Your task to perform on an android device: turn off translation in the chrome app Image 0: 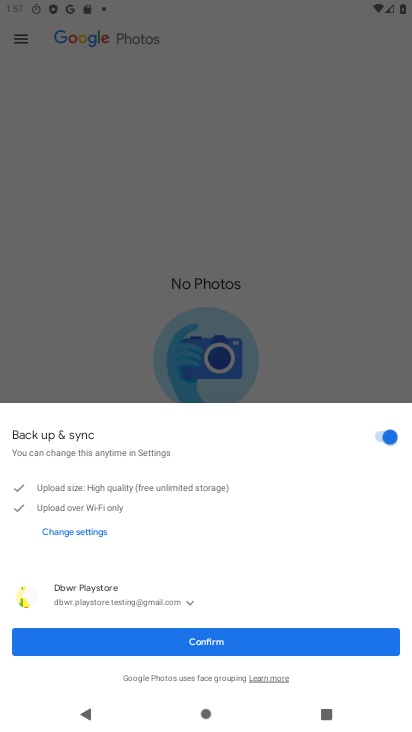
Step 0: press home button
Your task to perform on an android device: turn off translation in the chrome app Image 1: 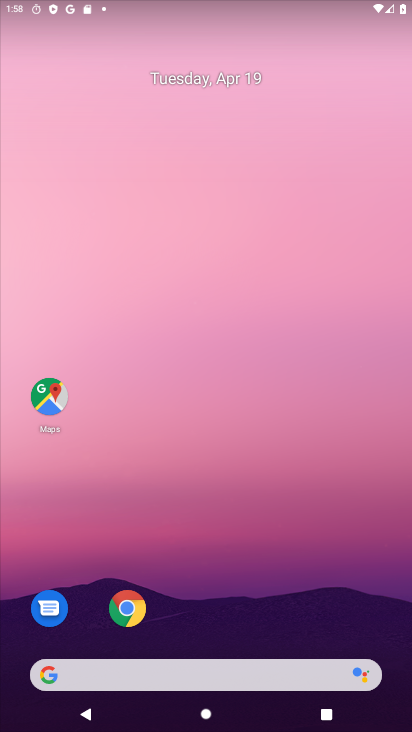
Step 1: drag from (284, 549) to (283, 5)
Your task to perform on an android device: turn off translation in the chrome app Image 2: 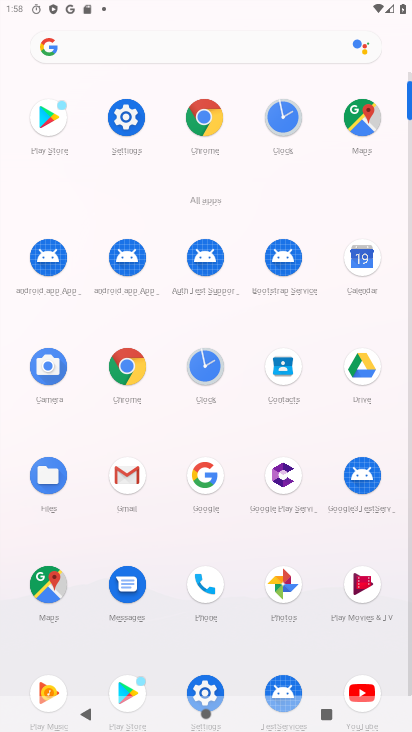
Step 2: click (120, 368)
Your task to perform on an android device: turn off translation in the chrome app Image 3: 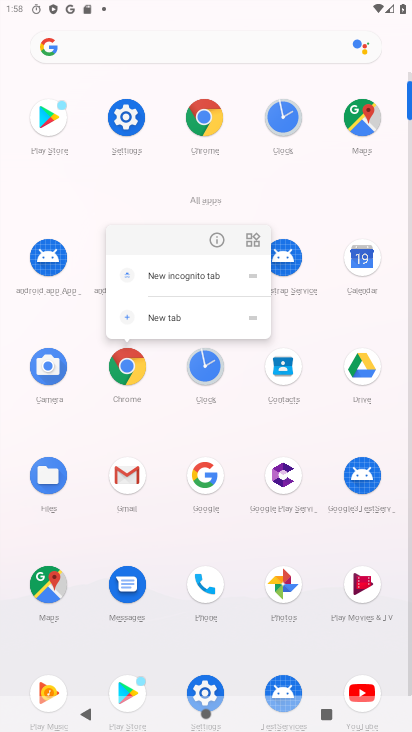
Step 3: click (116, 358)
Your task to perform on an android device: turn off translation in the chrome app Image 4: 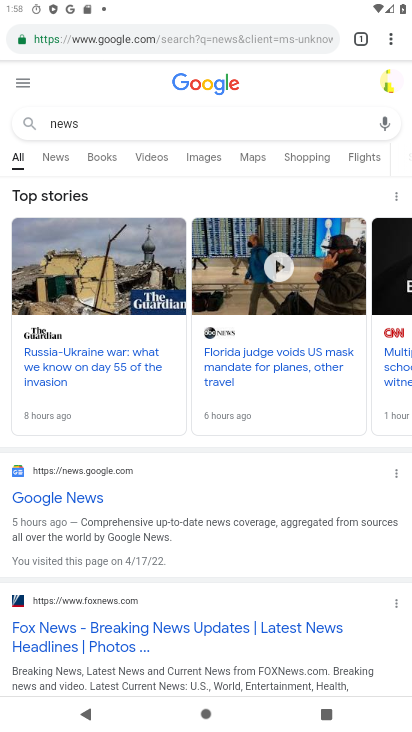
Step 4: click (387, 32)
Your task to perform on an android device: turn off translation in the chrome app Image 5: 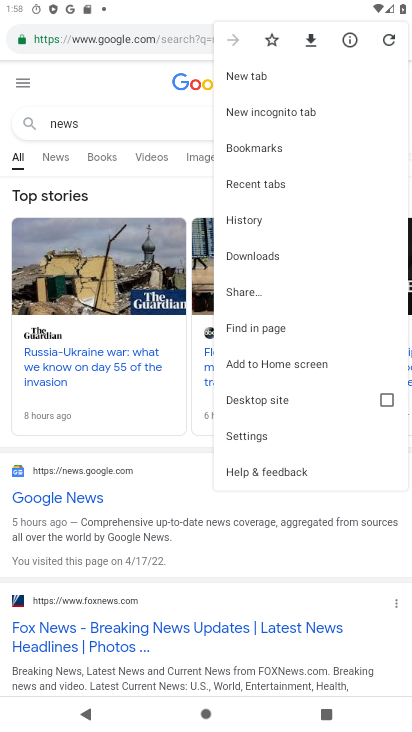
Step 5: click (284, 429)
Your task to perform on an android device: turn off translation in the chrome app Image 6: 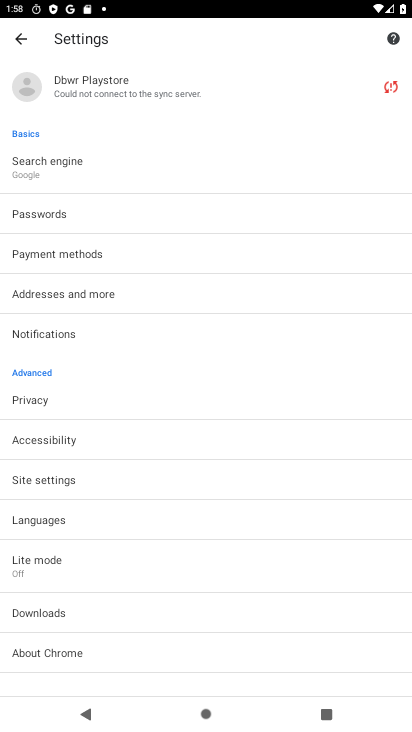
Step 6: click (31, 518)
Your task to perform on an android device: turn off translation in the chrome app Image 7: 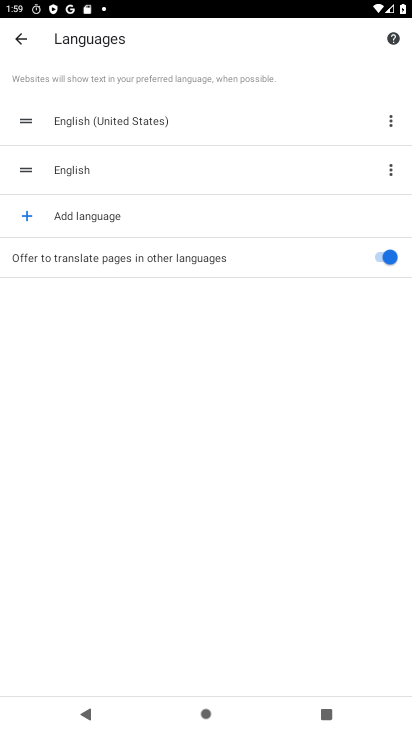
Step 7: click (388, 258)
Your task to perform on an android device: turn off translation in the chrome app Image 8: 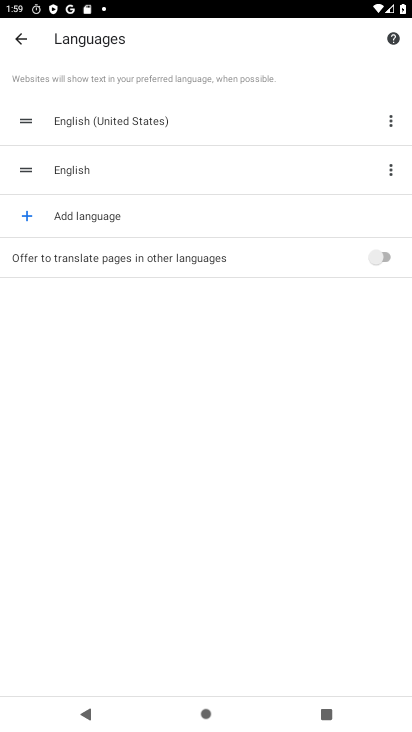
Step 8: task complete